Your task to perform on an android device: turn on javascript in the chrome app Image 0: 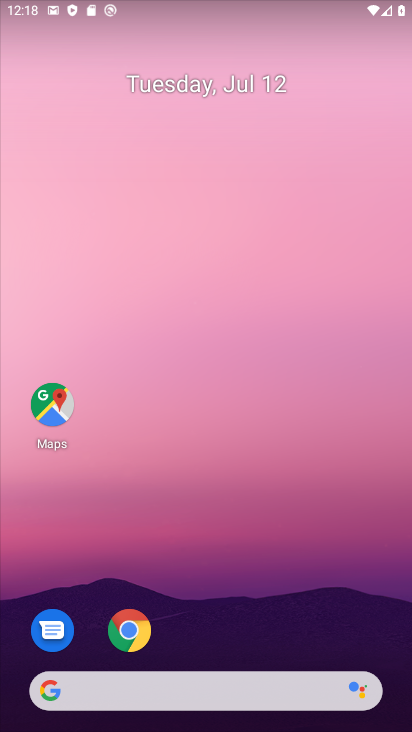
Step 0: drag from (264, 710) to (228, 236)
Your task to perform on an android device: turn on javascript in the chrome app Image 1: 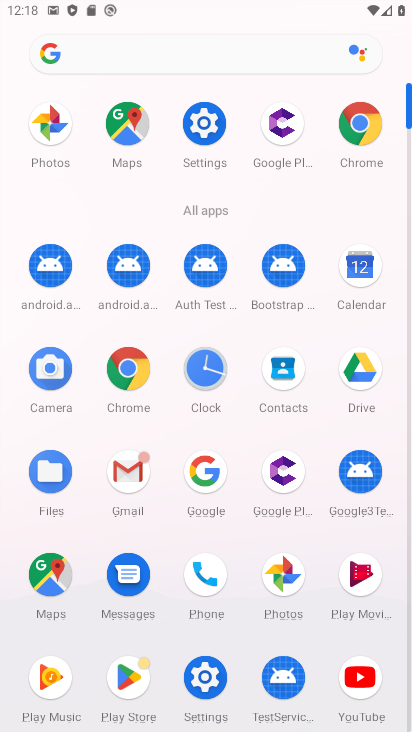
Step 1: click (351, 131)
Your task to perform on an android device: turn on javascript in the chrome app Image 2: 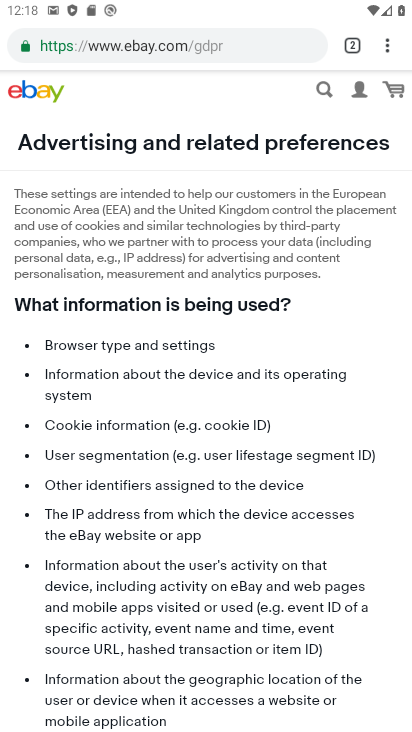
Step 2: click (386, 59)
Your task to perform on an android device: turn on javascript in the chrome app Image 3: 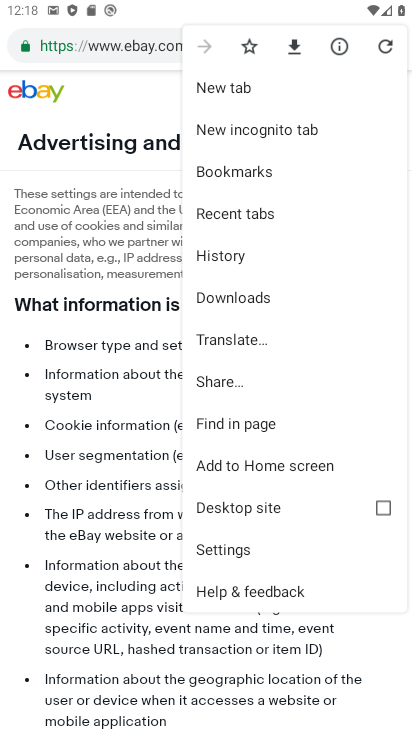
Step 3: click (230, 547)
Your task to perform on an android device: turn on javascript in the chrome app Image 4: 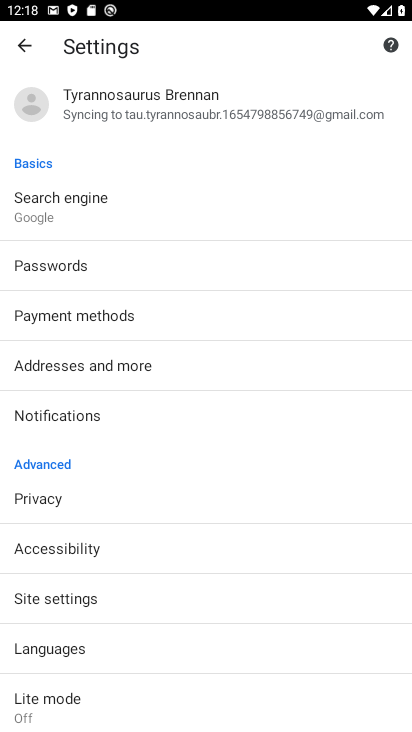
Step 4: click (99, 608)
Your task to perform on an android device: turn on javascript in the chrome app Image 5: 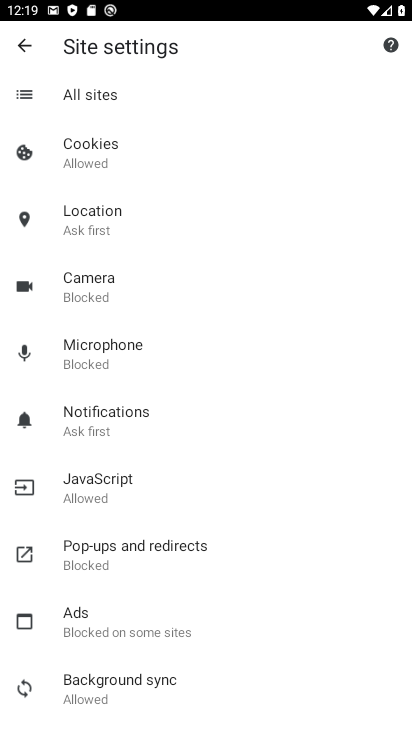
Step 5: click (98, 489)
Your task to perform on an android device: turn on javascript in the chrome app Image 6: 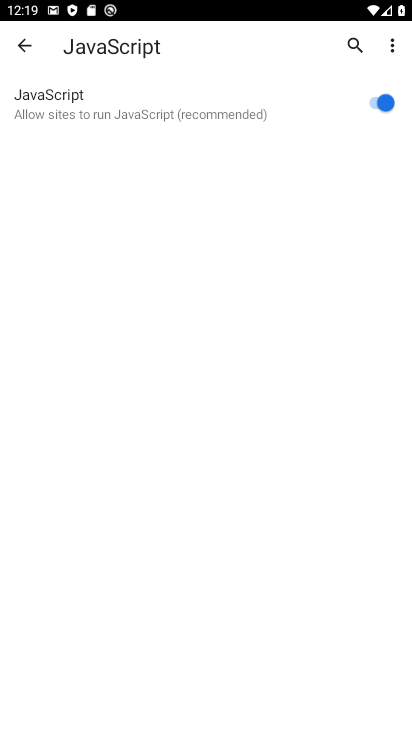
Step 6: click (384, 107)
Your task to perform on an android device: turn on javascript in the chrome app Image 7: 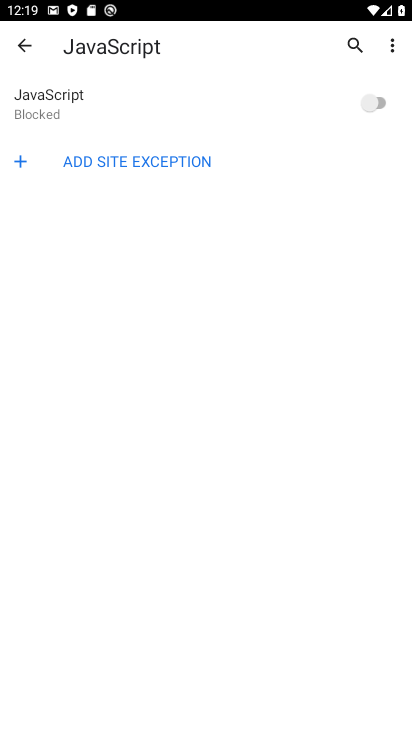
Step 7: click (388, 112)
Your task to perform on an android device: turn on javascript in the chrome app Image 8: 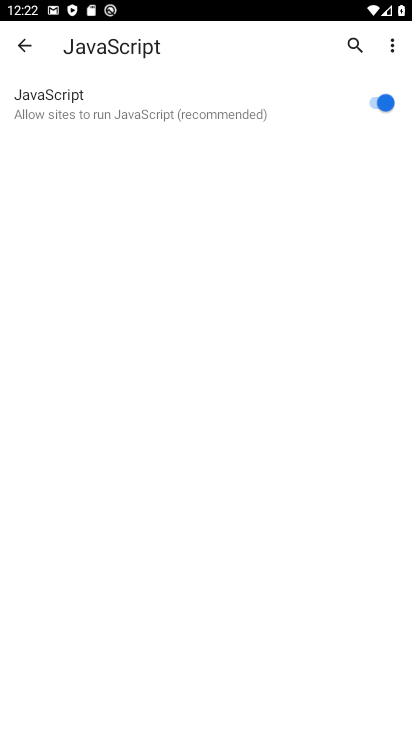
Step 8: task complete